Your task to perform on an android device: Search for a new mascara Image 0: 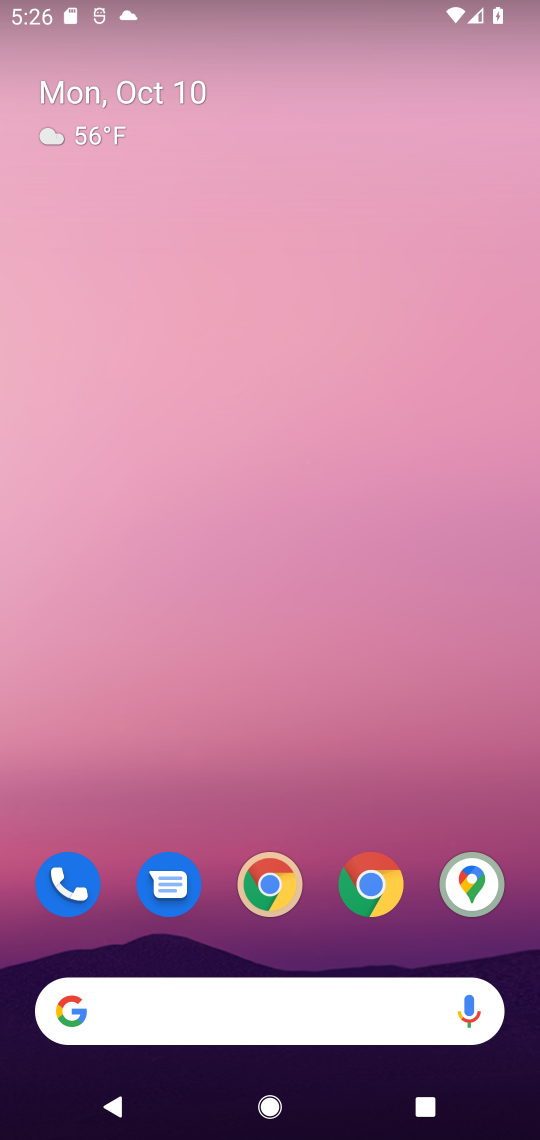
Step 0: click (222, 1012)
Your task to perform on an android device: Search for a new mascara Image 1: 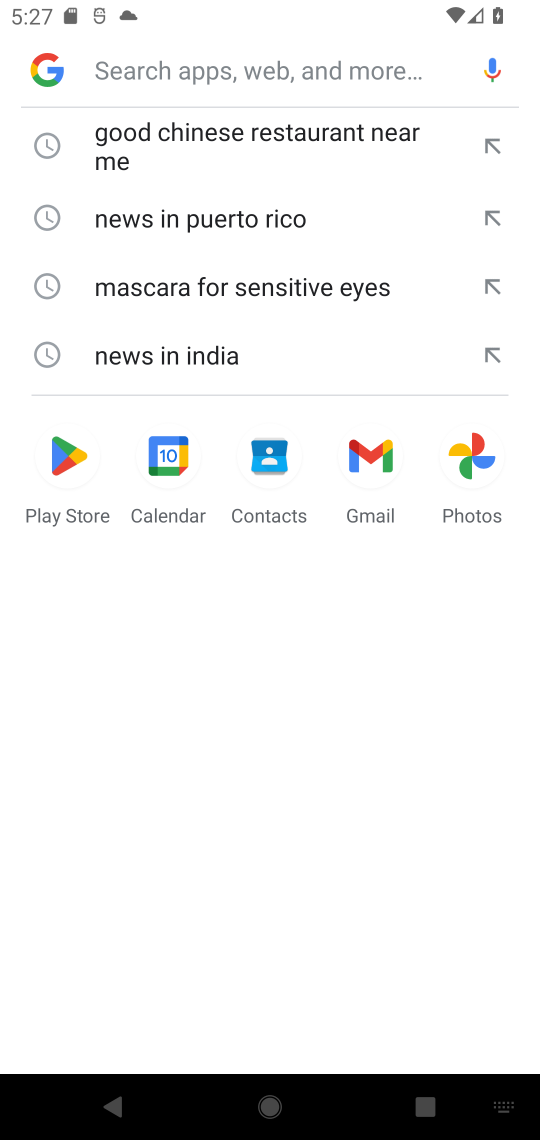
Step 1: type "new mascara"
Your task to perform on an android device: Search for a new mascara Image 2: 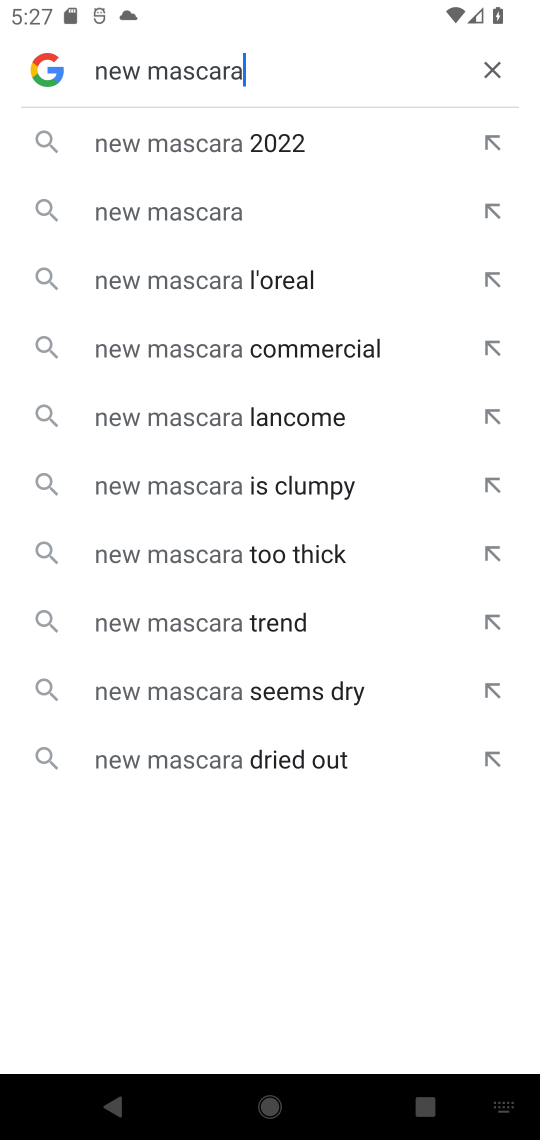
Step 2: click (159, 208)
Your task to perform on an android device: Search for a new mascara Image 3: 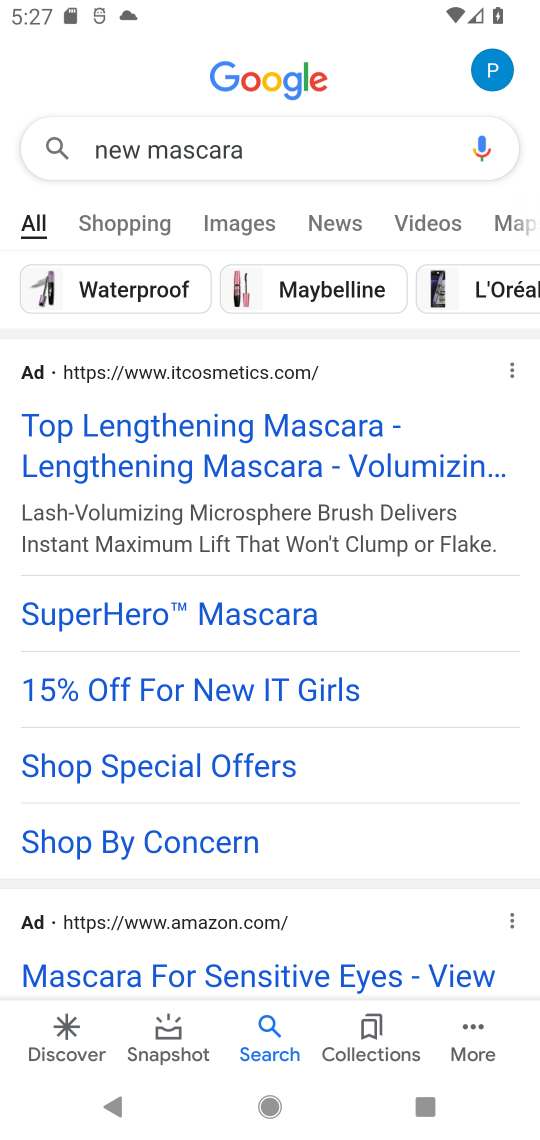
Step 3: click (164, 469)
Your task to perform on an android device: Search for a new mascara Image 4: 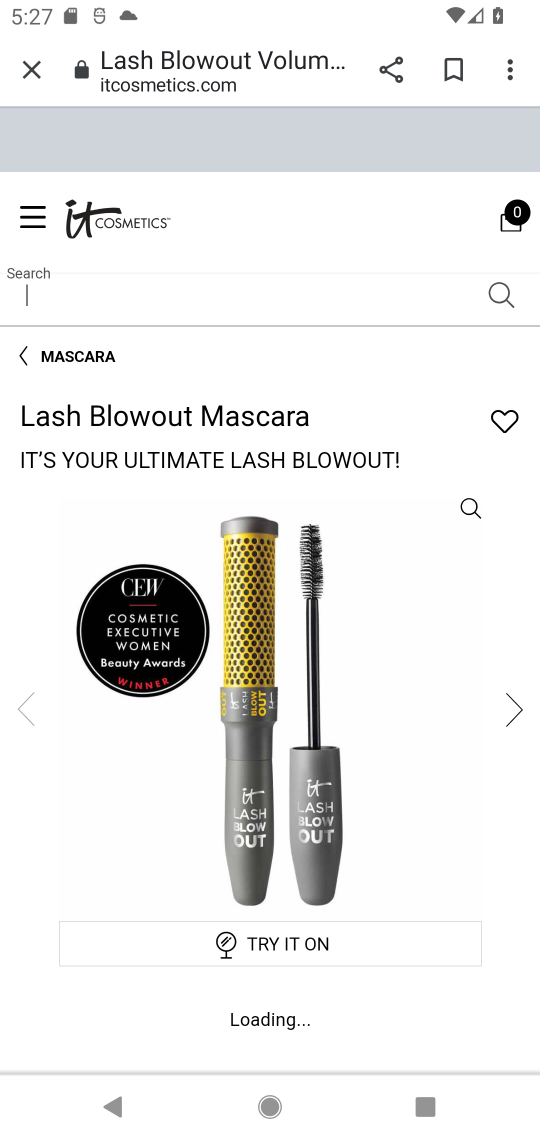
Step 4: task complete